Your task to perform on an android device: Open maps Image 0: 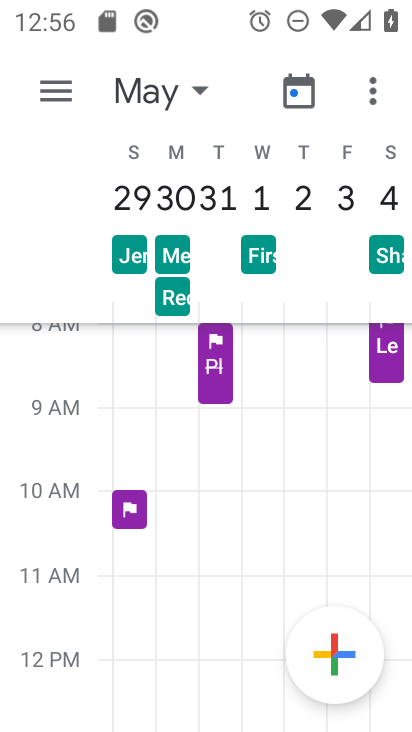
Step 0: press home button
Your task to perform on an android device: Open maps Image 1: 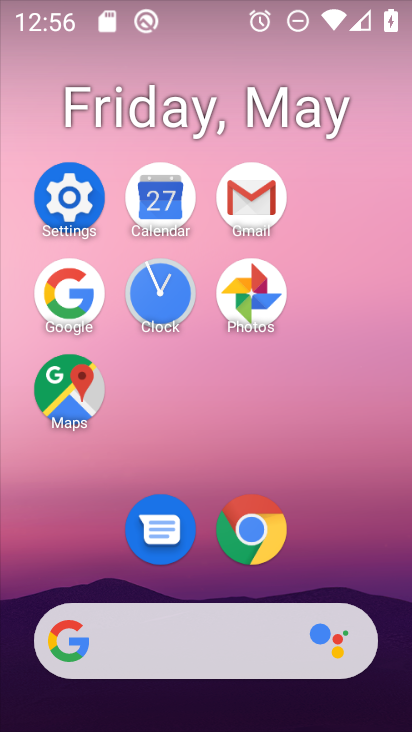
Step 1: click (82, 389)
Your task to perform on an android device: Open maps Image 2: 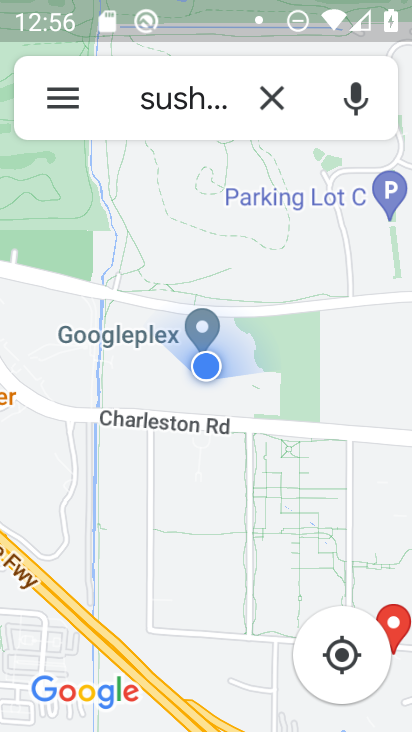
Step 2: task complete